Your task to perform on an android device: change the clock display to show seconds Image 0: 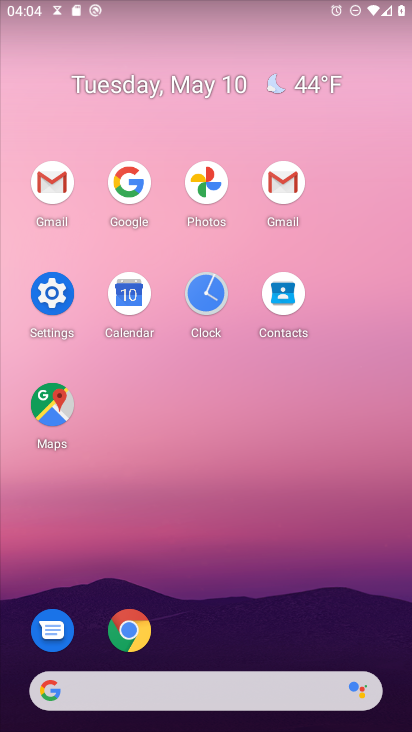
Step 0: click (211, 284)
Your task to perform on an android device: change the clock display to show seconds Image 1: 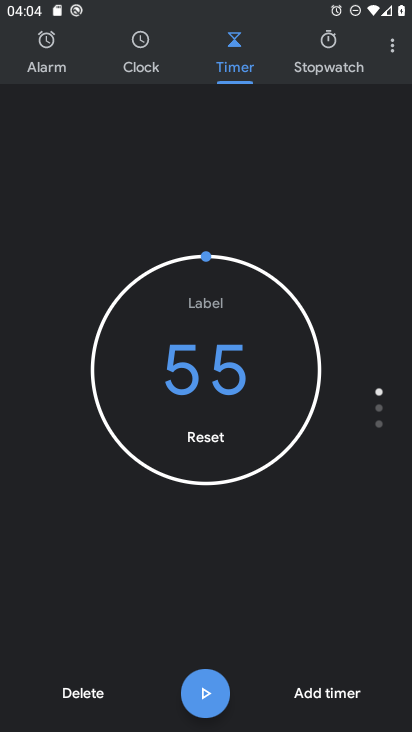
Step 1: click (388, 51)
Your task to perform on an android device: change the clock display to show seconds Image 2: 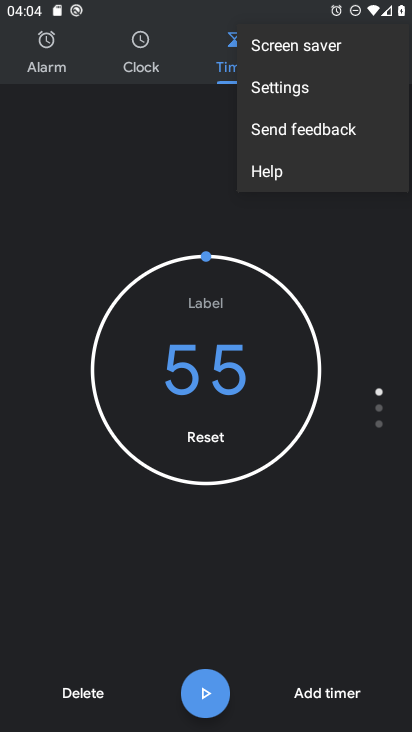
Step 2: click (321, 83)
Your task to perform on an android device: change the clock display to show seconds Image 3: 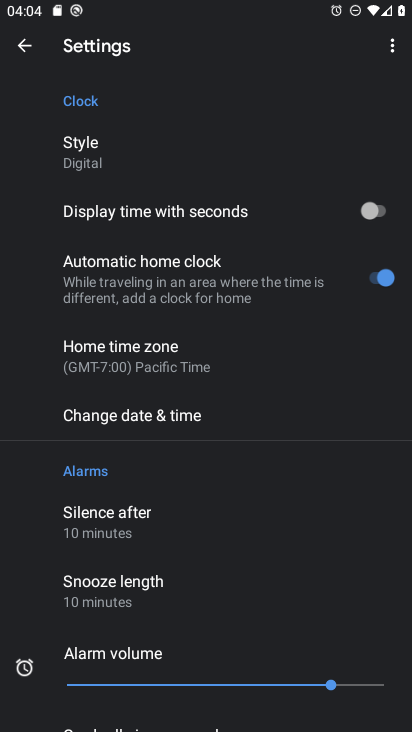
Step 3: click (369, 212)
Your task to perform on an android device: change the clock display to show seconds Image 4: 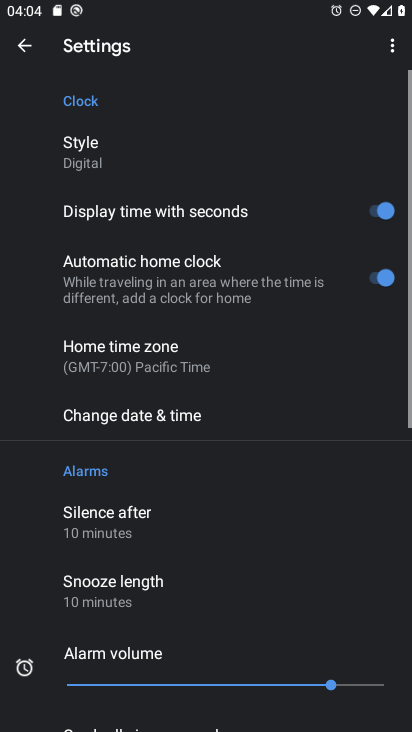
Step 4: task complete